Your task to perform on an android device: Go to network settings Image 0: 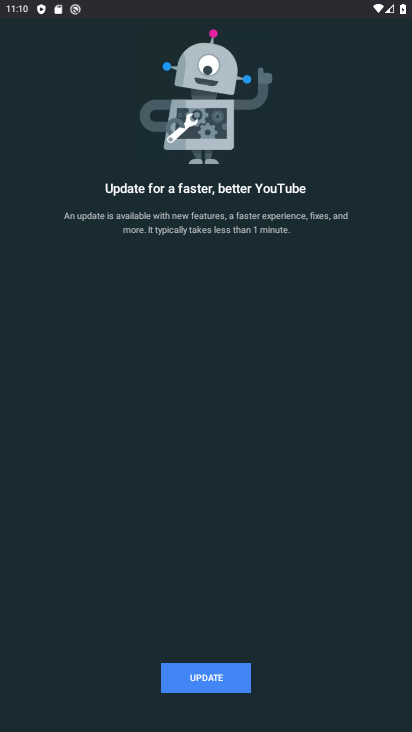
Step 0: press home button
Your task to perform on an android device: Go to network settings Image 1: 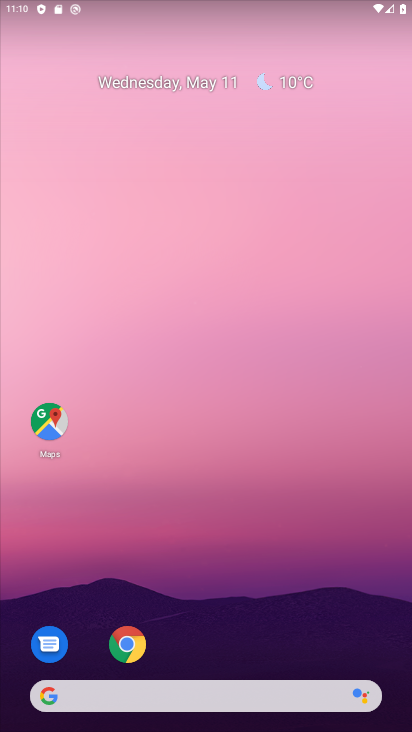
Step 1: drag from (278, 538) to (137, 10)
Your task to perform on an android device: Go to network settings Image 2: 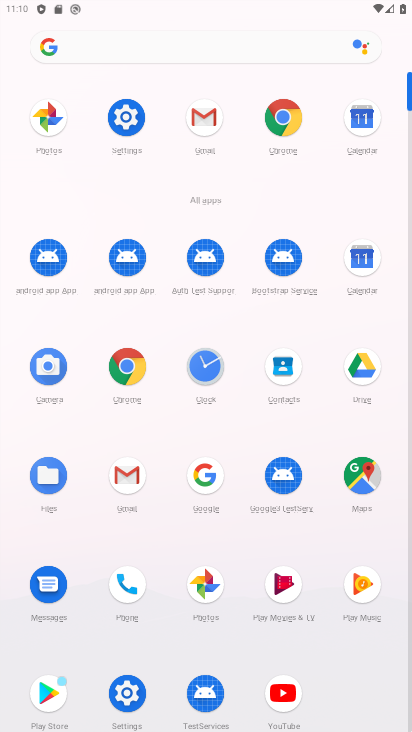
Step 2: click (122, 126)
Your task to perform on an android device: Go to network settings Image 3: 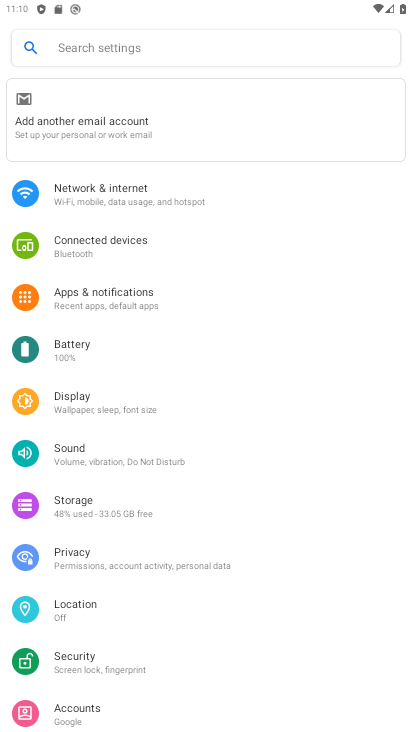
Step 3: click (119, 198)
Your task to perform on an android device: Go to network settings Image 4: 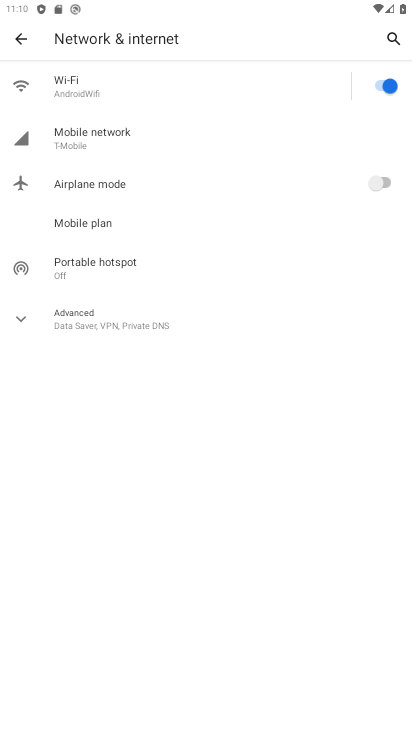
Step 4: task complete